Your task to perform on an android device: toggle sleep mode Image 0: 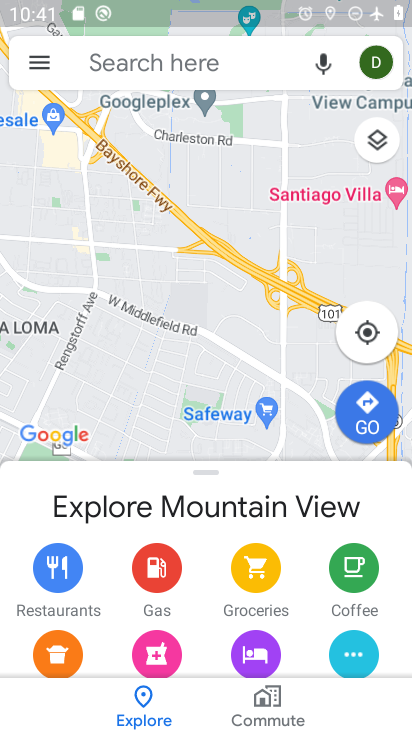
Step 0: press home button
Your task to perform on an android device: toggle sleep mode Image 1: 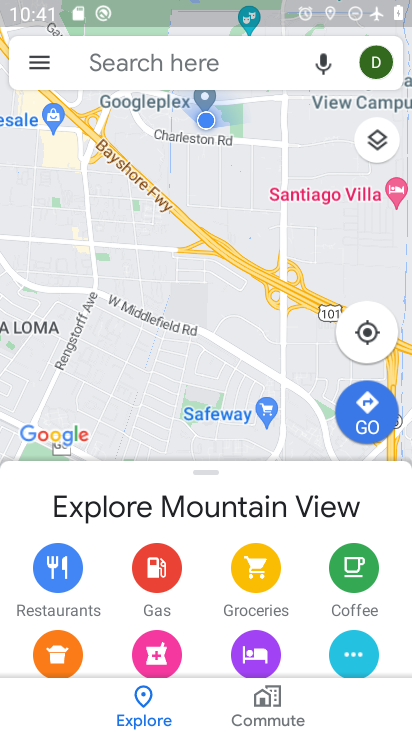
Step 1: press home button
Your task to perform on an android device: toggle sleep mode Image 2: 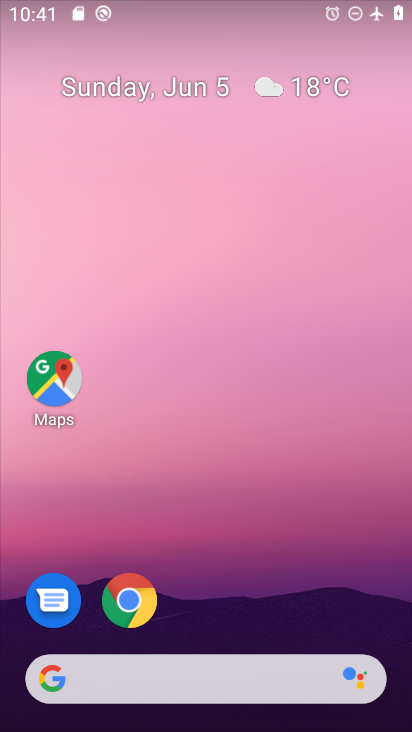
Step 2: drag from (232, 566) to (190, 44)
Your task to perform on an android device: toggle sleep mode Image 3: 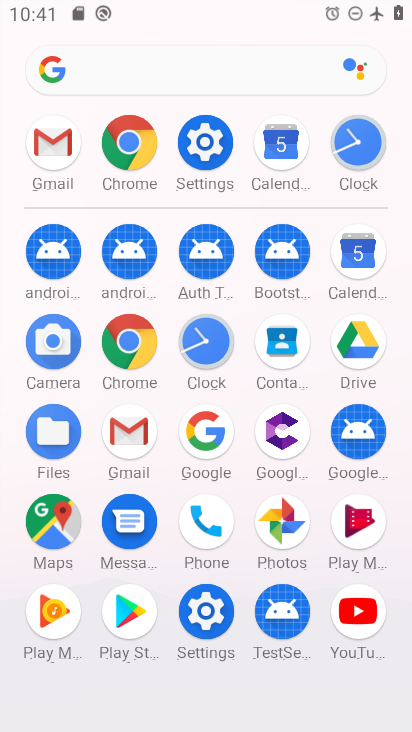
Step 3: click (201, 134)
Your task to perform on an android device: toggle sleep mode Image 4: 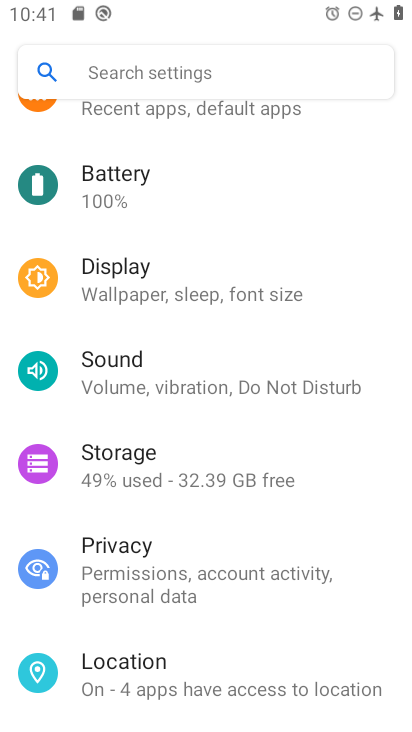
Step 4: click (221, 289)
Your task to perform on an android device: toggle sleep mode Image 5: 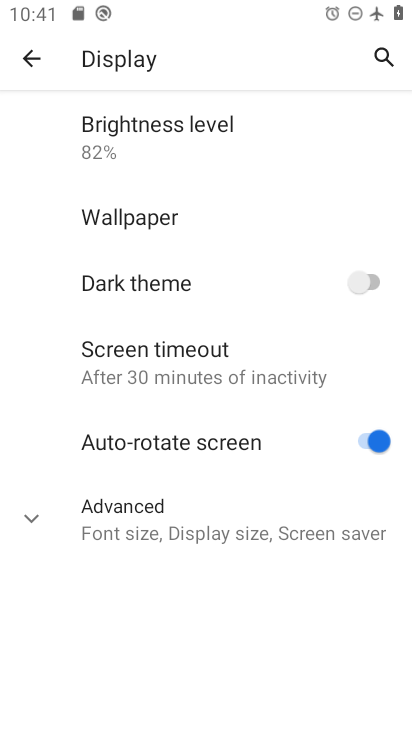
Step 5: click (31, 517)
Your task to perform on an android device: toggle sleep mode Image 6: 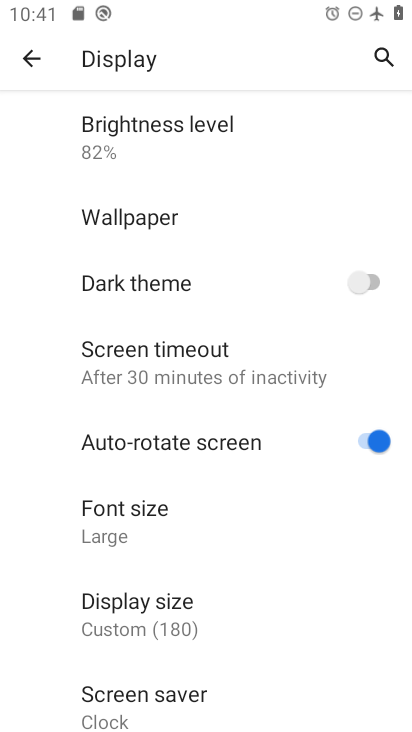
Step 6: task complete